Your task to perform on an android device: Show me recent news Image 0: 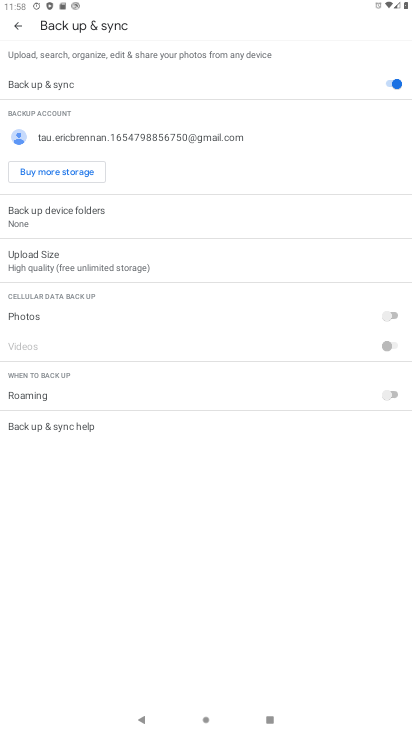
Step 0: press home button
Your task to perform on an android device: Show me recent news Image 1: 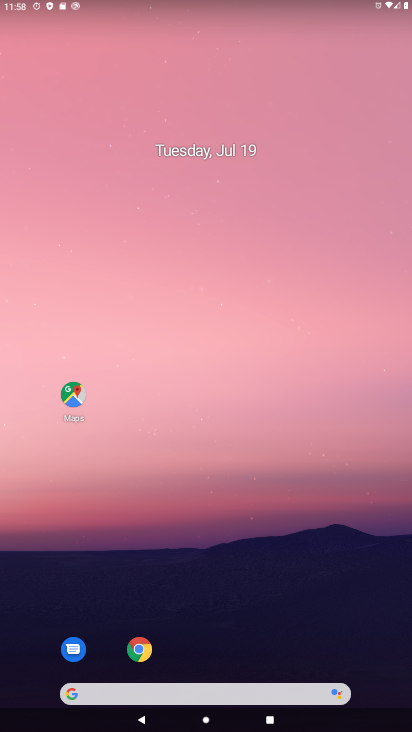
Step 1: task complete